Your task to perform on an android device: What's the weather going to be tomorrow? Image 0: 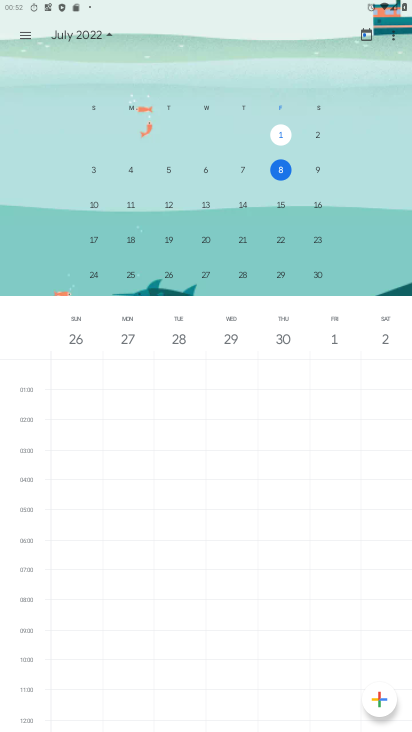
Step 0: press home button
Your task to perform on an android device: What's the weather going to be tomorrow? Image 1: 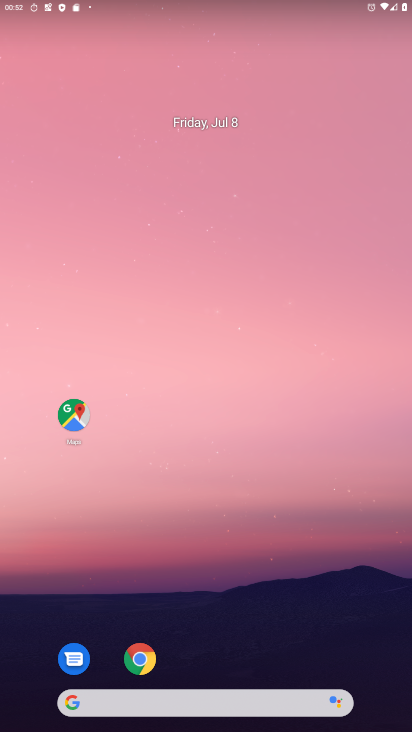
Step 1: click (160, 697)
Your task to perform on an android device: What's the weather going to be tomorrow? Image 2: 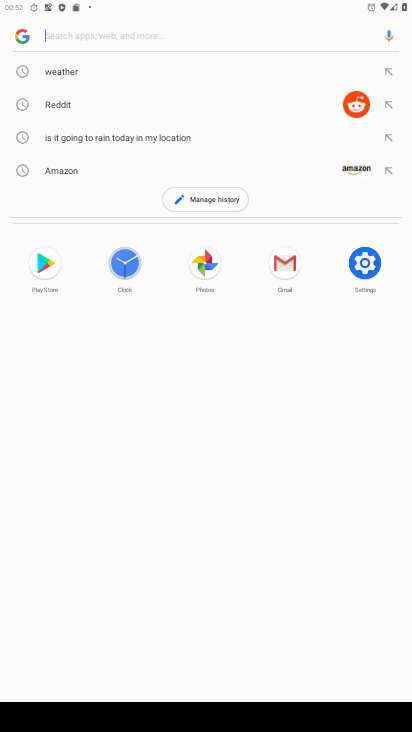
Step 2: click (86, 58)
Your task to perform on an android device: What's the weather going to be tomorrow? Image 3: 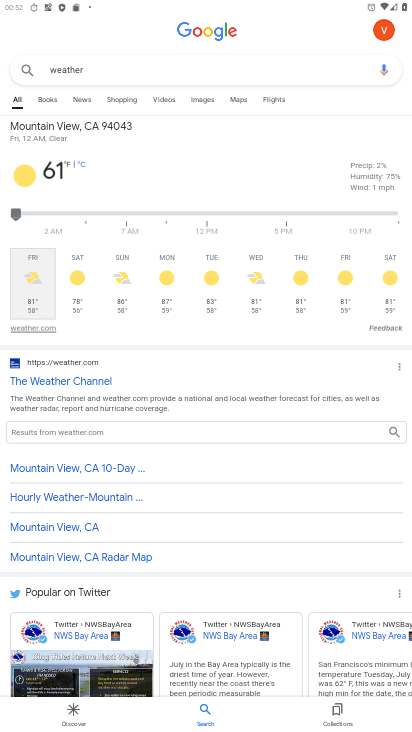
Step 3: click (79, 275)
Your task to perform on an android device: What's the weather going to be tomorrow? Image 4: 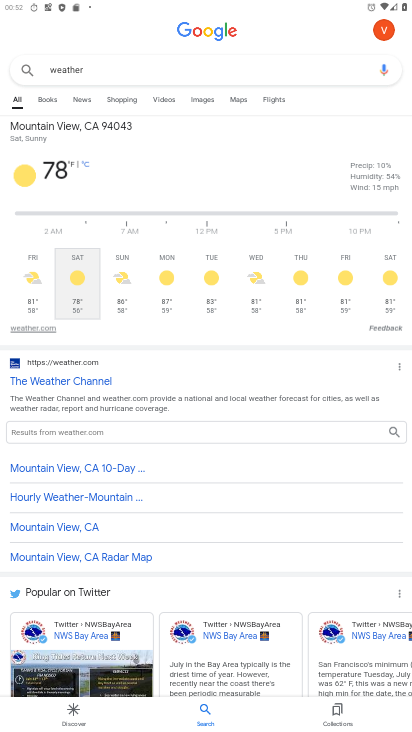
Step 4: task complete